Your task to perform on an android device: change the clock display to digital Image 0: 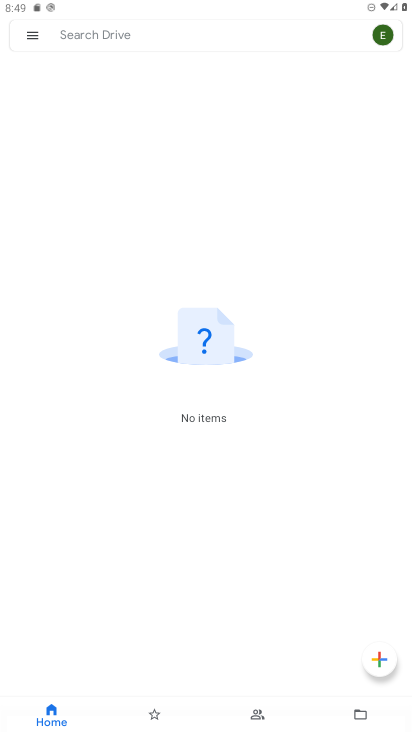
Step 0: press home button
Your task to perform on an android device: change the clock display to digital Image 1: 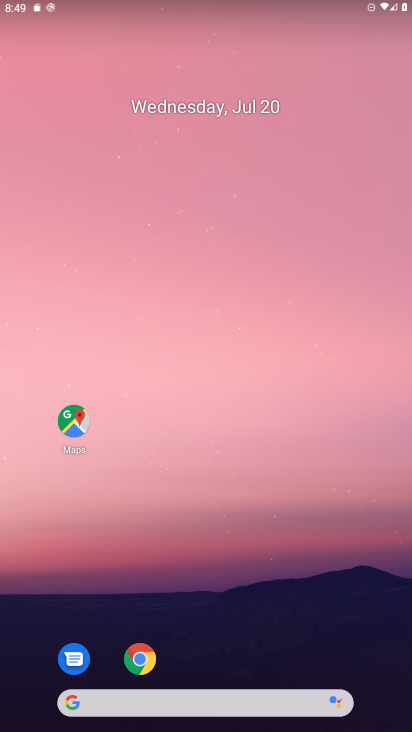
Step 1: drag from (251, 593) to (213, 139)
Your task to perform on an android device: change the clock display to digital Image 2: 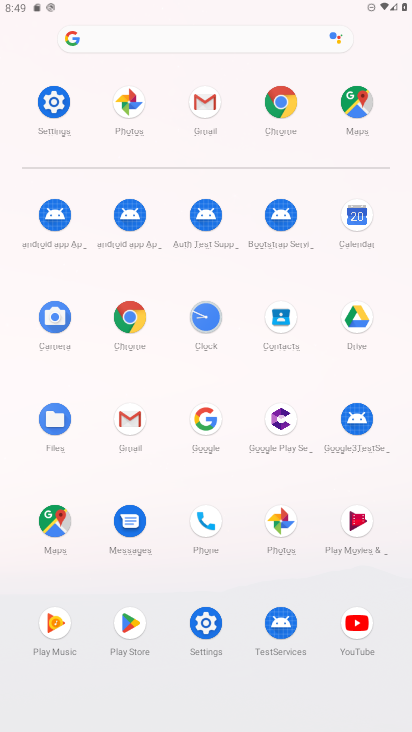
Step 2: click (208, 325)
Your task to perform on an android device: change the clock display to digital Image 3: 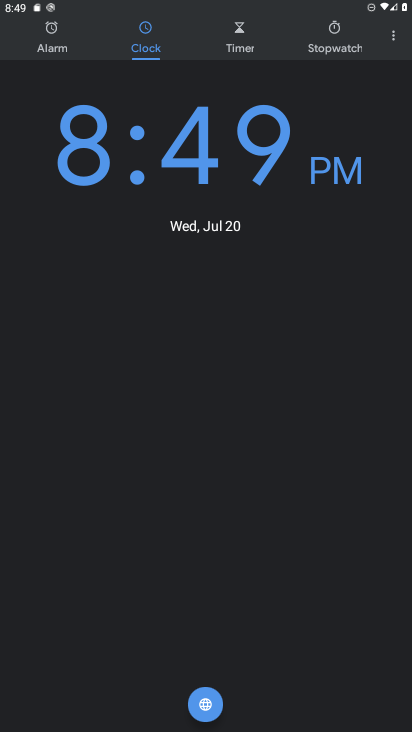
Step 3: click (389, 41)
Your task to perform on an android device: change the clock display to digital Image 4: 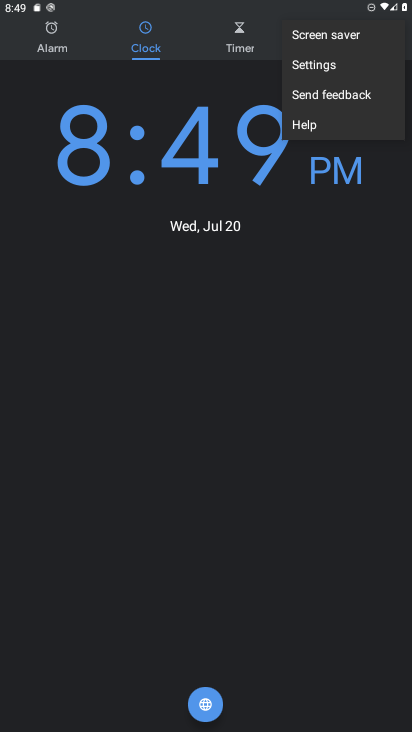
Step 4: click (309, 63)
Your task to perform on an android device: change the clock display to digital Image 5: 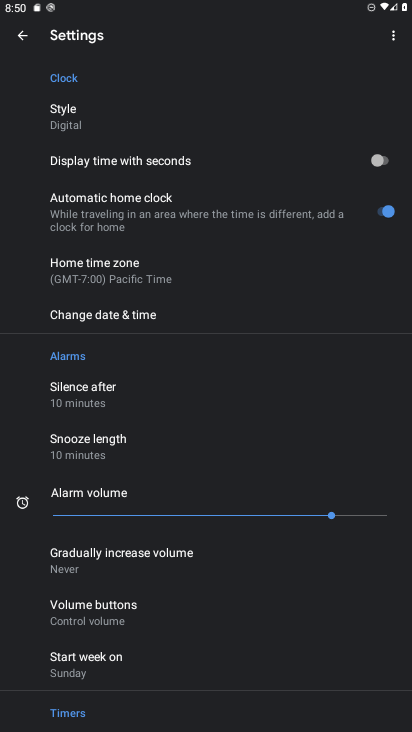
Step 5: task complete